Your task to perform on an android device: Turn off the flashlight Image 0: 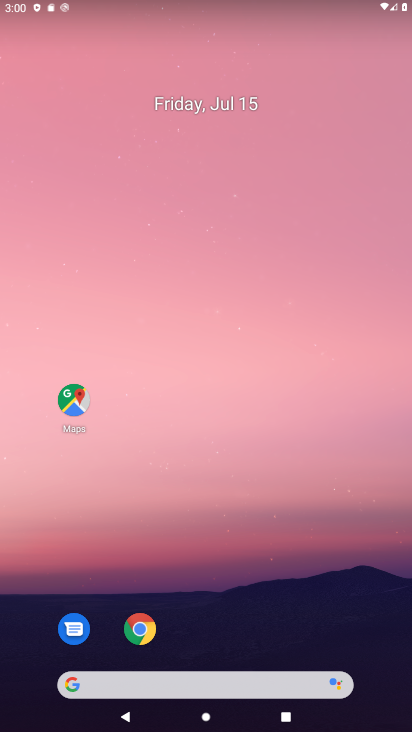
Step 0: drag from (198, 402) to (199, 188)
Your task to perform on an android device: Turn off the flashlight Image 1: 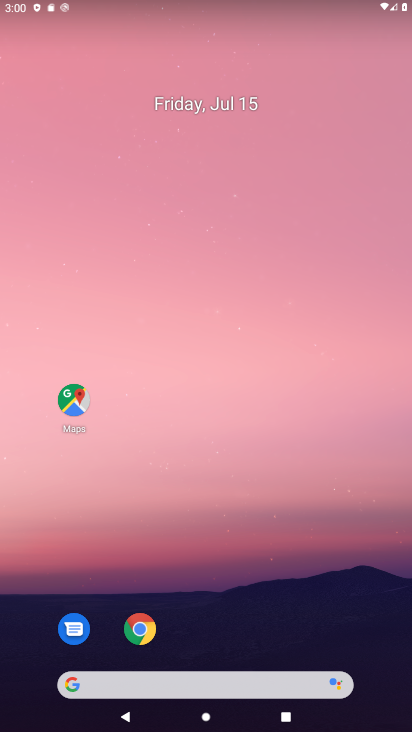
Step 1: task complete